Your task to perform on an android device: add a contact Image 0: 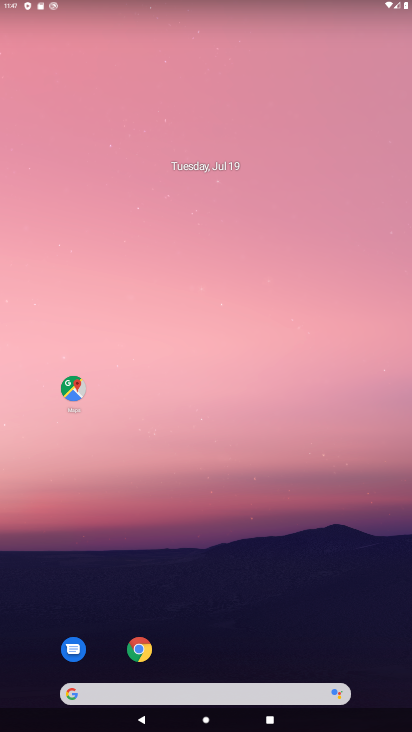
Step 0: drag from (288, 261) to (299, 100)
Your task to perform on an android device: add a contact Image 1: 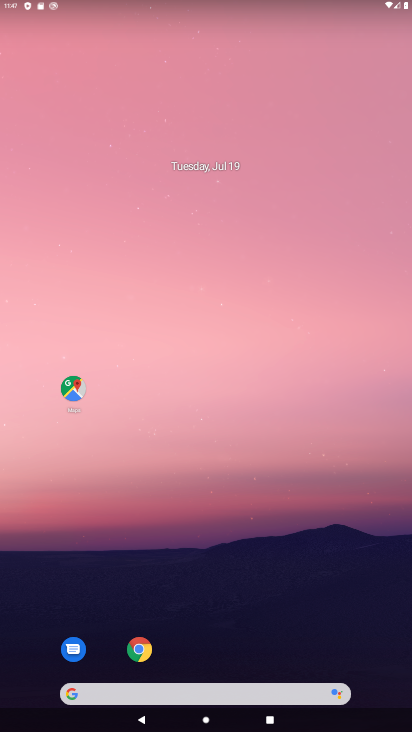
Step 1: drag from (279, 535) to (382, 607)
Your task to perform on an android device: add a contact Image 2: 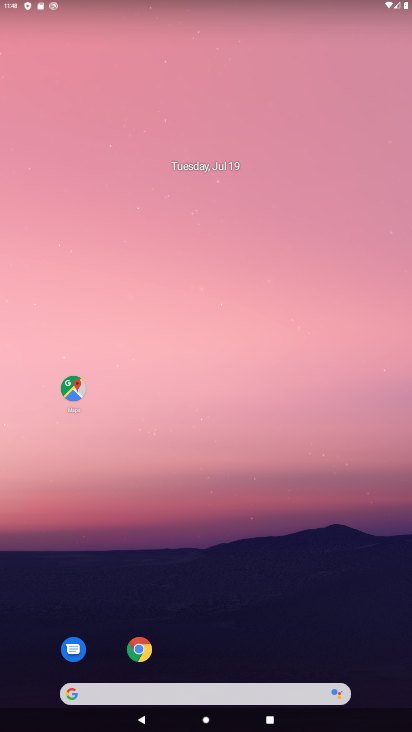
Step 2: drag from (206, 385) to (225, 0)
Your task to perform on an android device: add a contact Image 3: 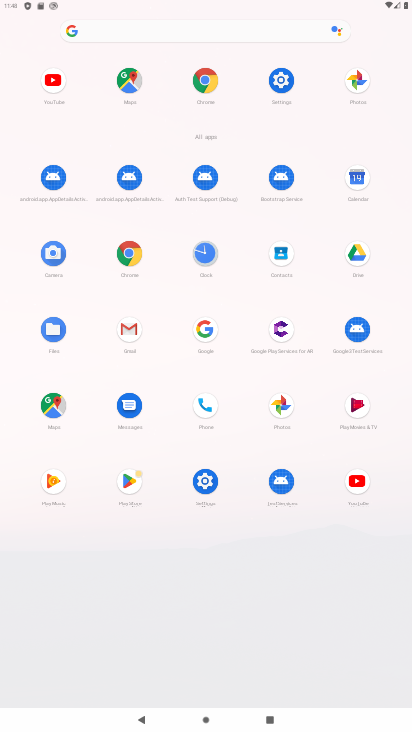
Step 3: click (284, 250)
Your task to perform on an android device: add a contact Image 4: 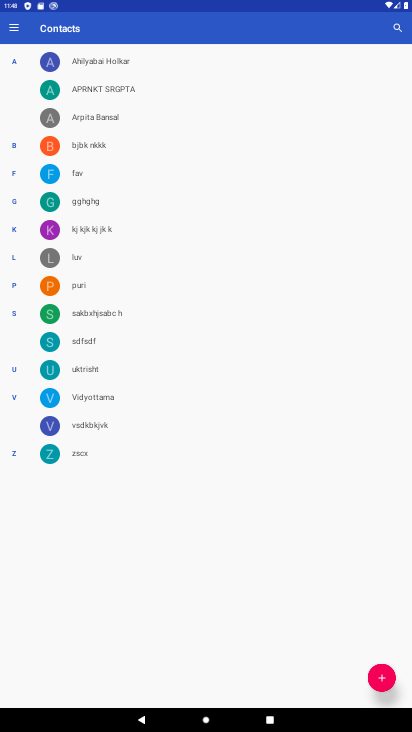
Step 4: click (379, 683)
Your task to perform on an android device: add a contact Image 5: 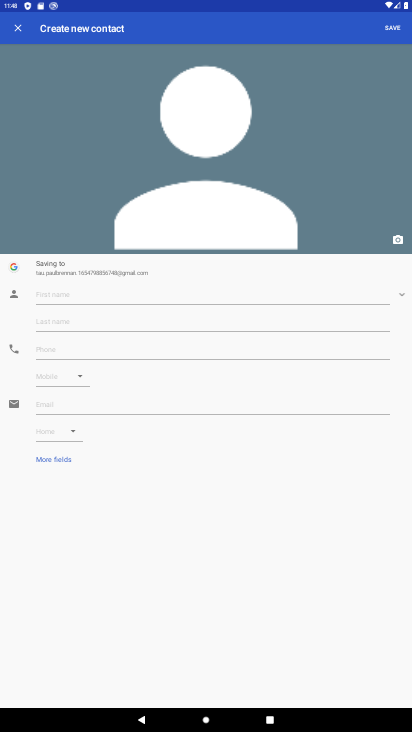
Step 5: click (107, 294)
Your task to perform on an android device: add a contact Image 6: 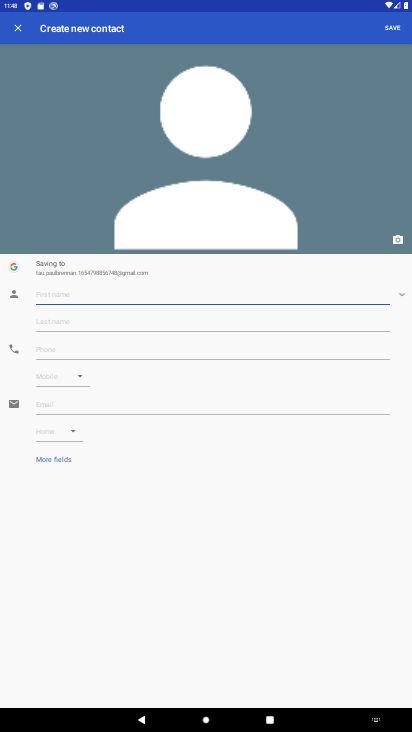
Step 6: type "ggdgddhcgfcgf"
Your task to perform on an android device: add a contact Image 7: 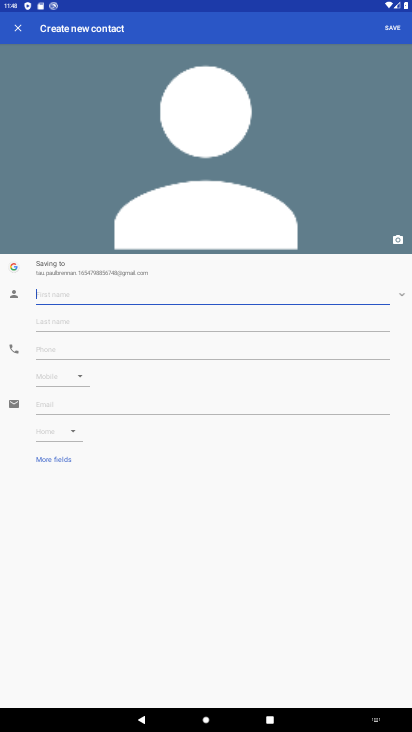
Step 7: click (61, 292)
Your task to perform on an android device: add a contact Image 8: 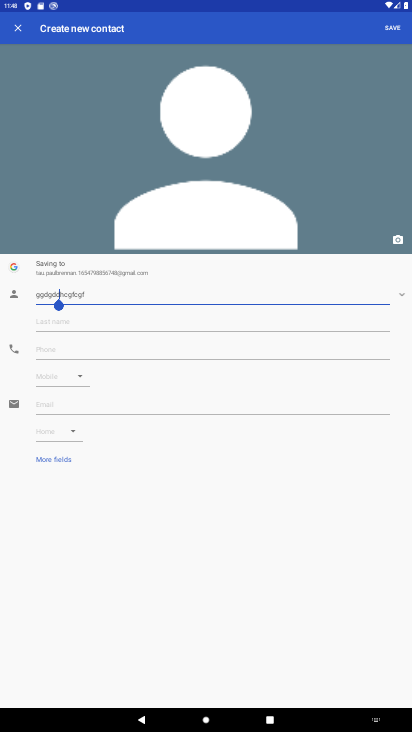
Step 8: click (62, 345)
Your task to perform on an android device: add a contact Image 9: 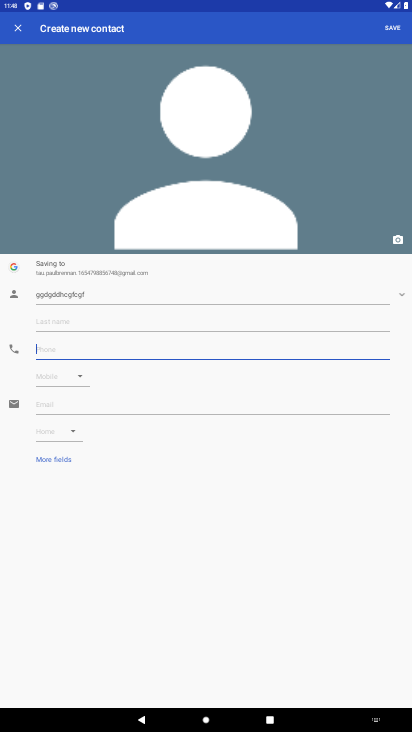
Step 9: type "5356565653355"
Your task to perform on an android device: add a contact Image 10: 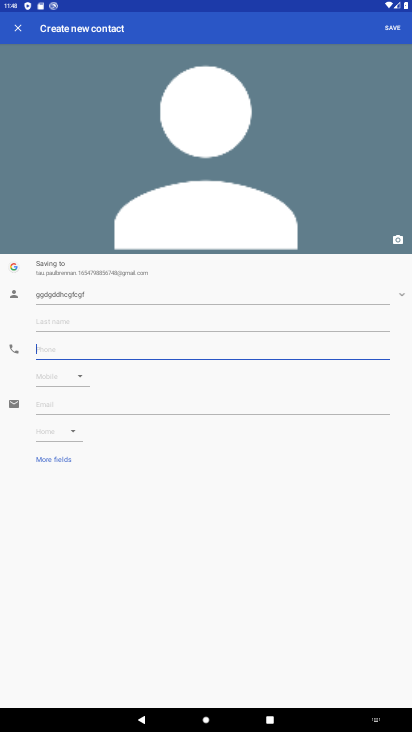
Step 10: click (95, 348)
Your task to perform on an android device: add a contact Image 11: 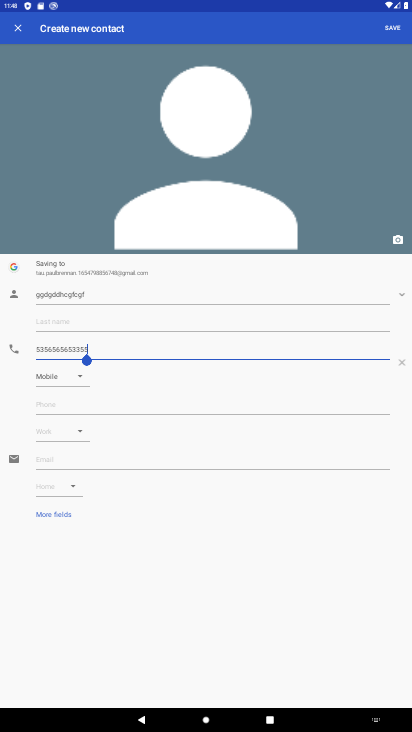
Step 11: click (397, 25)
Your task to perform on an android device: add a contact Image 12: 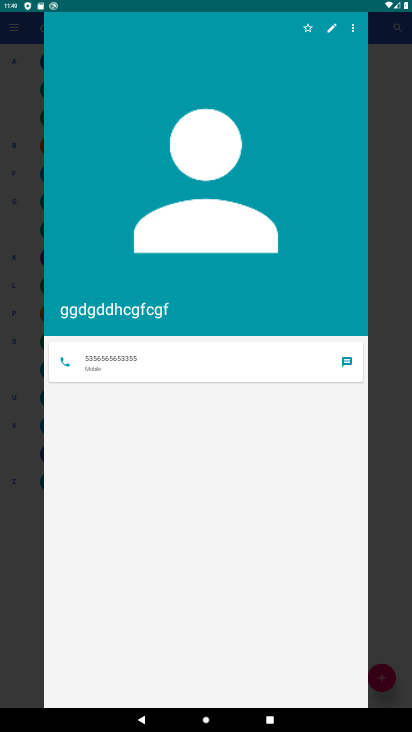
Step 12: task complete